Your task to perform on an android device: Go to privacy settings Image 0: 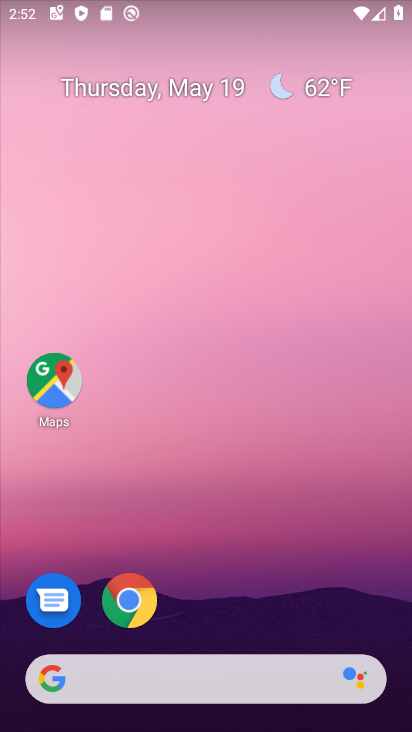
Step 0: drag from (71, 408) to (216, 117)
Your task to perform on an android device: Go to privacy settings Image 1: 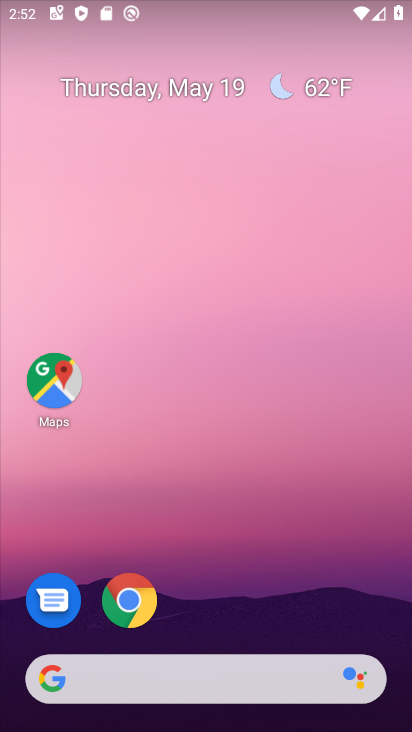
Step 1: drag from (70, 501) to (300, 123)
Your task to perform on an android device: Go to privacy settings Image 2: 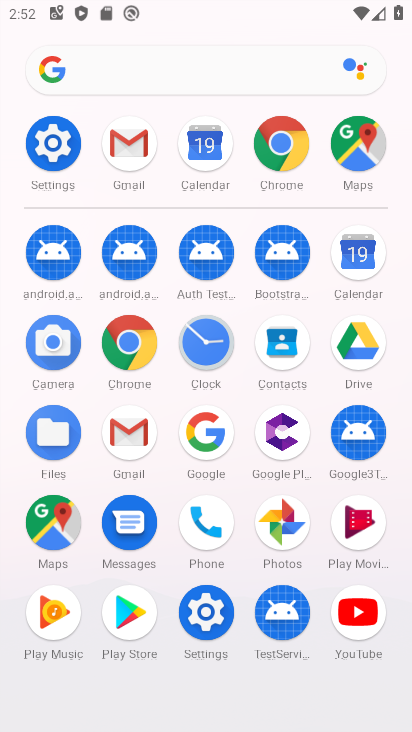
Step 2: click (47, 138)
Your task to perform on an android device: Go to privacy settings Image 3: 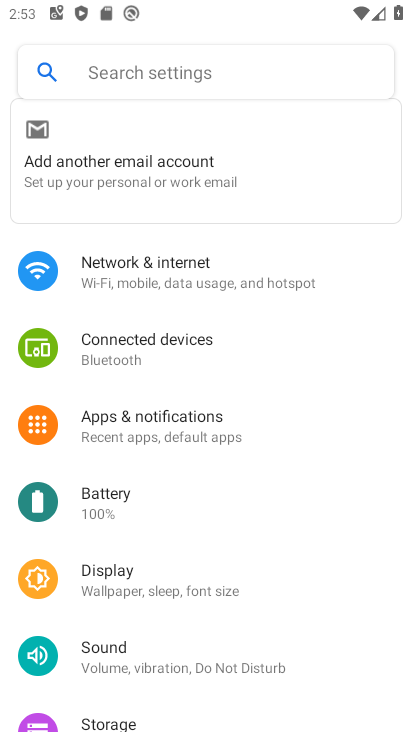
Step 3: drag from (24, 707) to (234, 274)
Your task to perform on an android device: Go to privacy settings Image 4: 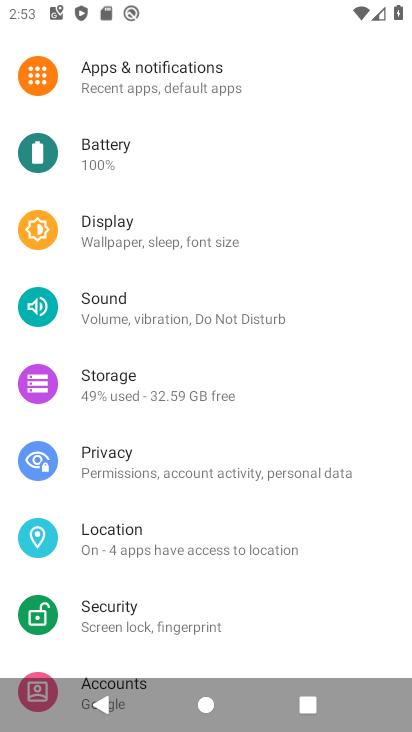
Step 4: click (189, 461)
Your task to perform on an android device: Go to privacy settings Image 5: 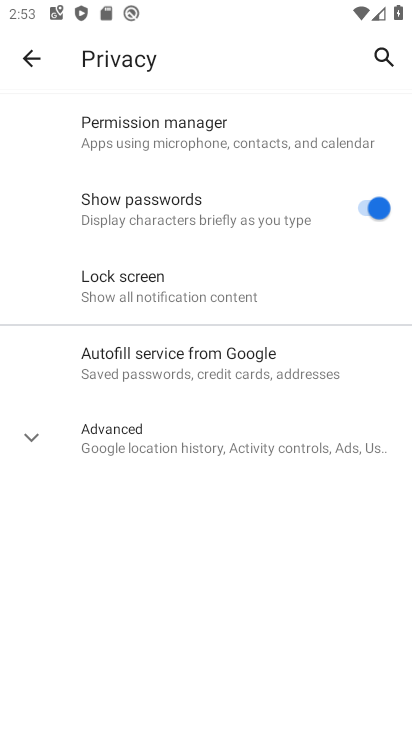
Step 5: task complete